Your task to perform on an android device: turn on data saver in the chrome app Image 0: 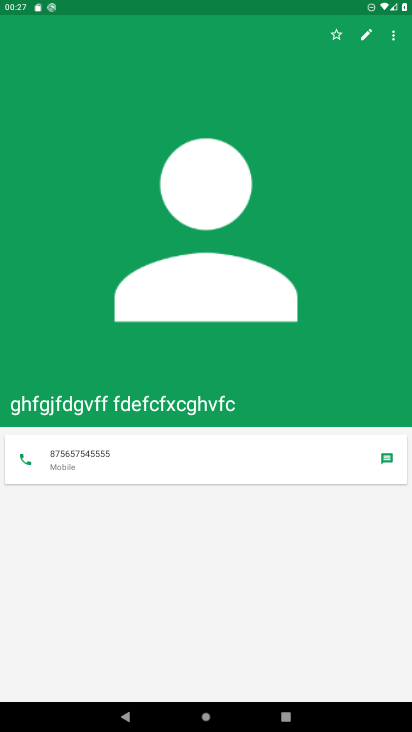
Step 0: press home button
Your task to perform on an android device: turn on data saver in the chrome app Image 1: 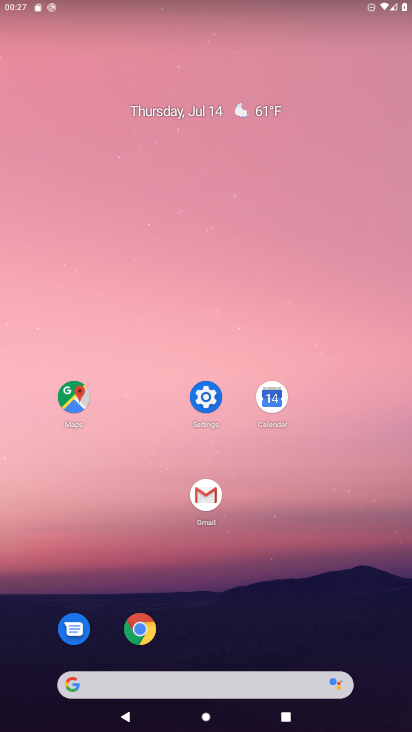
Step 1: click (137, 629)
Your task to perform on an android device: turn on data saver in the chrome app Image 2: 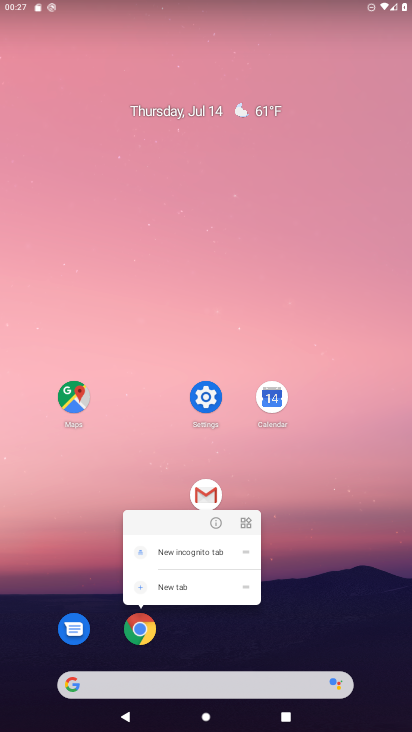
Step 2: click (195, 496)
Your task to perform on an android device: turn on data saver in the chrome app Image 3: 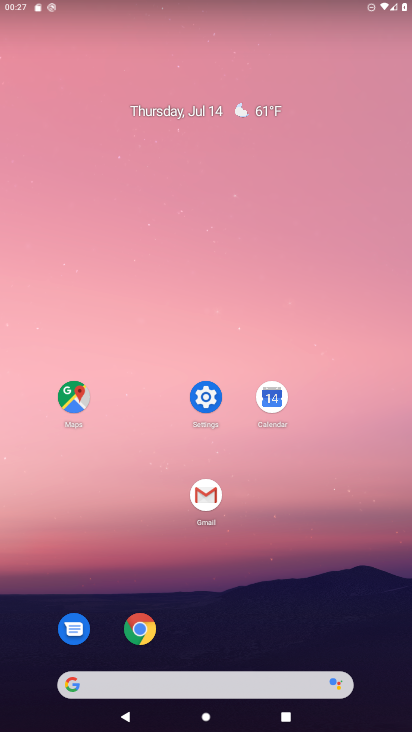
Step 3: click (142, 625)
Your task to perform on an android device: turn on data saver in the chrome app Image 4: 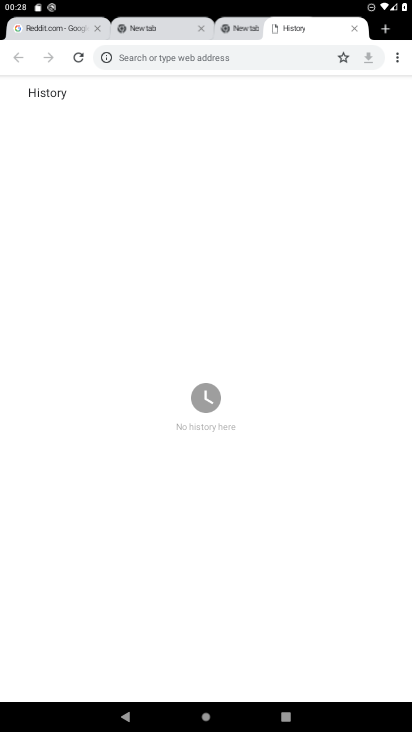
Step 4: click (400, 56)
Your task to perform on an android device: turn on data saver in the chrome app Image 5: 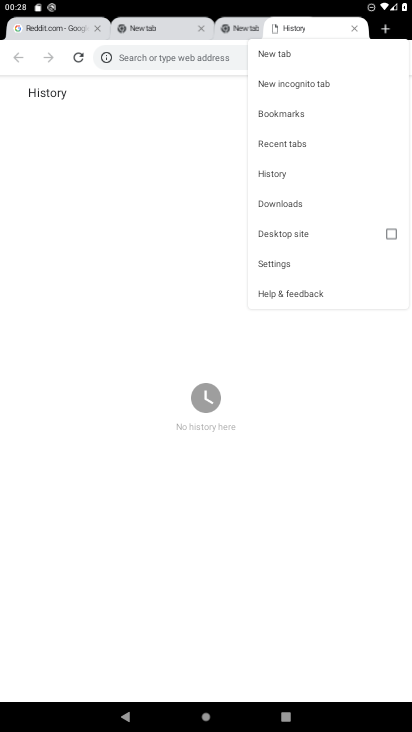
Step 5: click (271, 265)
Your task to perform on an android device: turn on data saver in the chrome app Image 6: 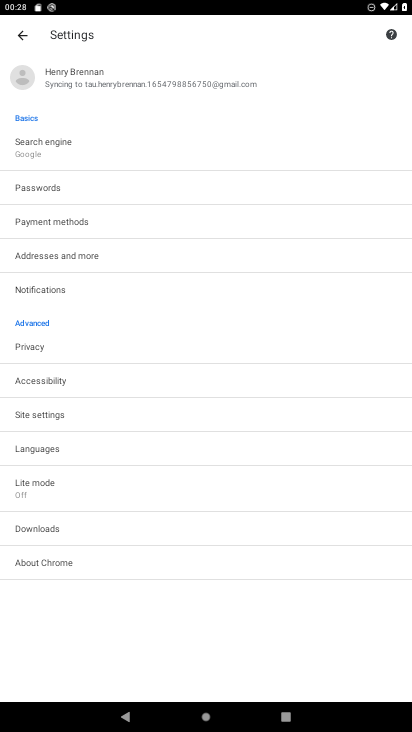
Step 6: click (59, 484)
Your task to perform on an android device: turn on data saver in the chrome app Image 7: 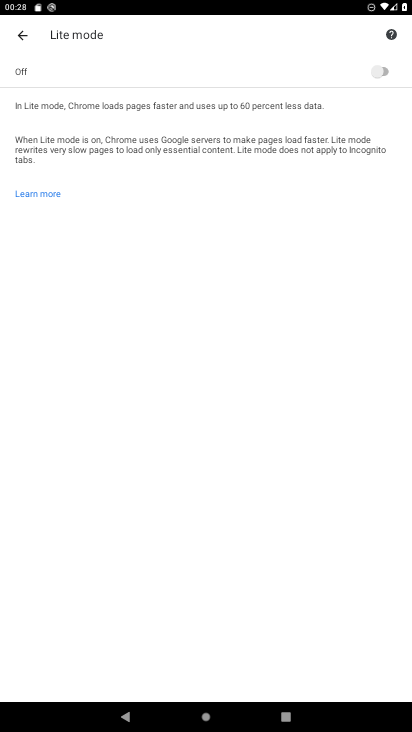
Step 7: click (385, 76)
Your task to perform on an android device: turn on data saver in the chrome app Image 8: 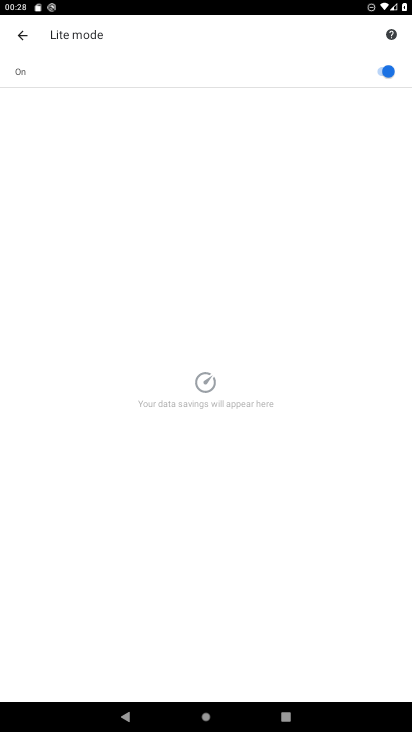
Step 8: task complete